Your task to perform on an android device: Go to privacy settings Image 0: 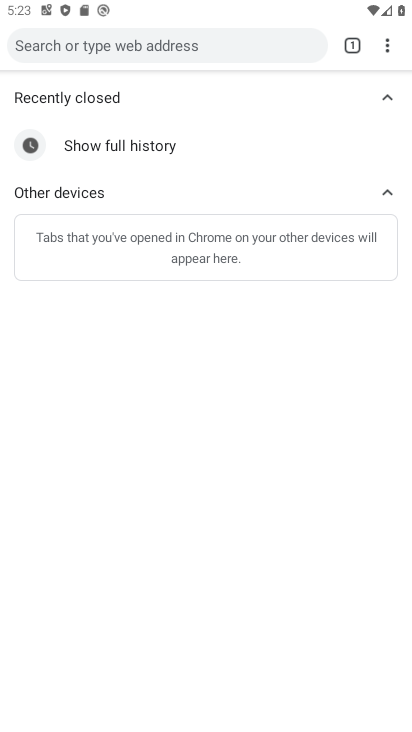
Step 0: drag from (262, 631) to (279, 315)
Your task to perform on an android device: Go to privacy settings Image 1: 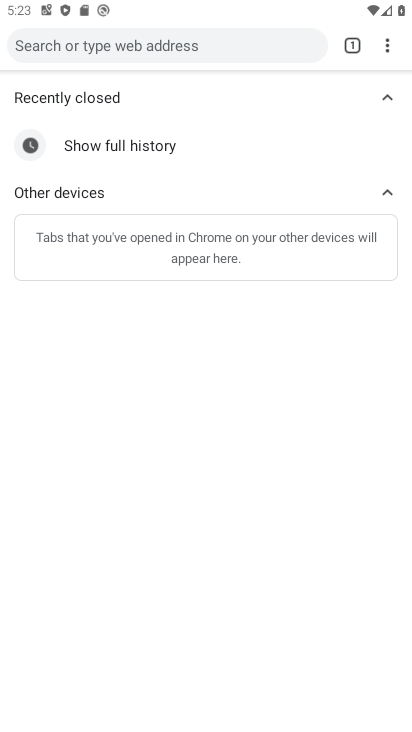
Step 1: press home button
Your task to perform on an android device: Go to privacy settings Image 2: 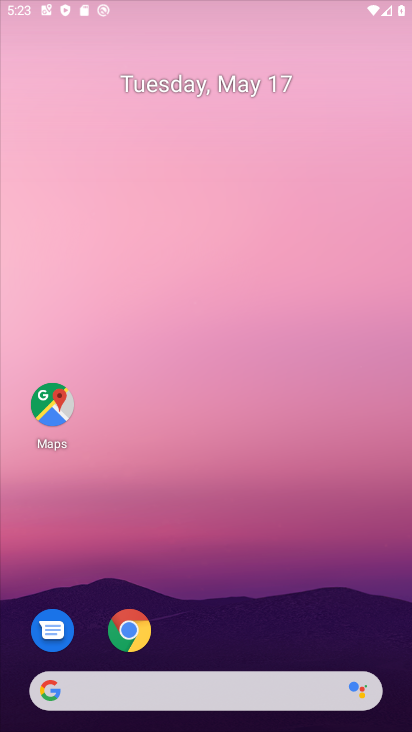
Step 2: drag from (298, 573) to (283, 172)
Your task to perform on an android device: Go to privacy settings Image 3: 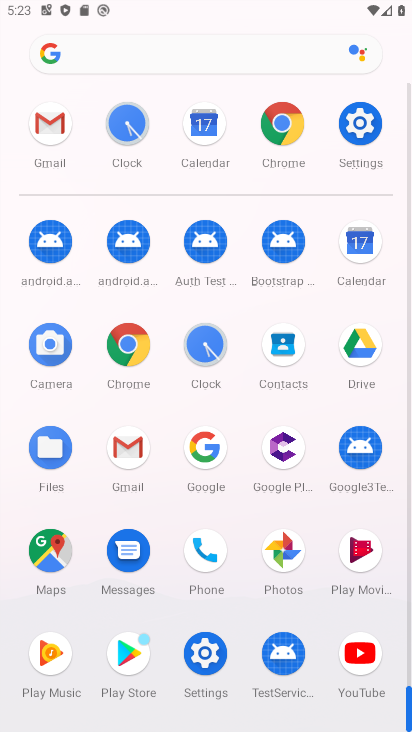
Step 3: click (351, 121)
Your task to perform on an android device: Go to privacy settings Image 4: 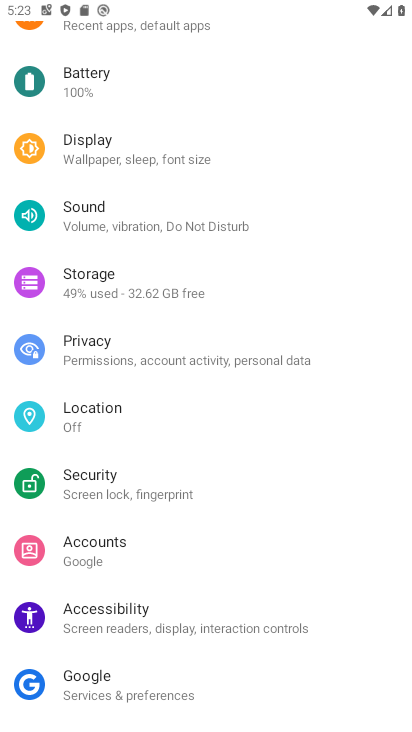
Step 4: click (148, 377)
Your task to perform on an android device: Go to privacy settings Image 5: 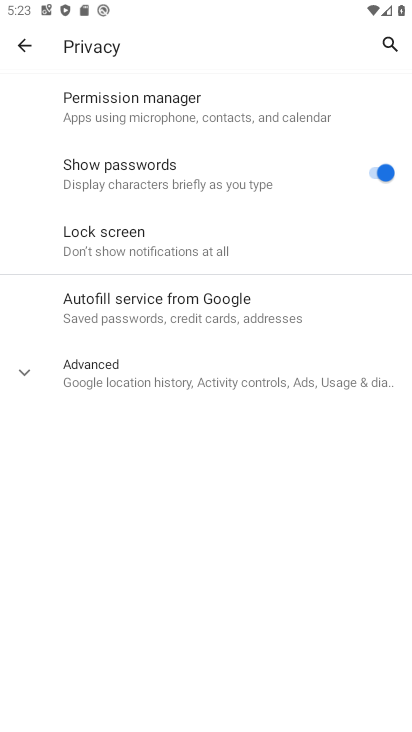
Step 5: task complete